Your task to perform on an android device: Empty the shopping cart on ebay. Image 0: 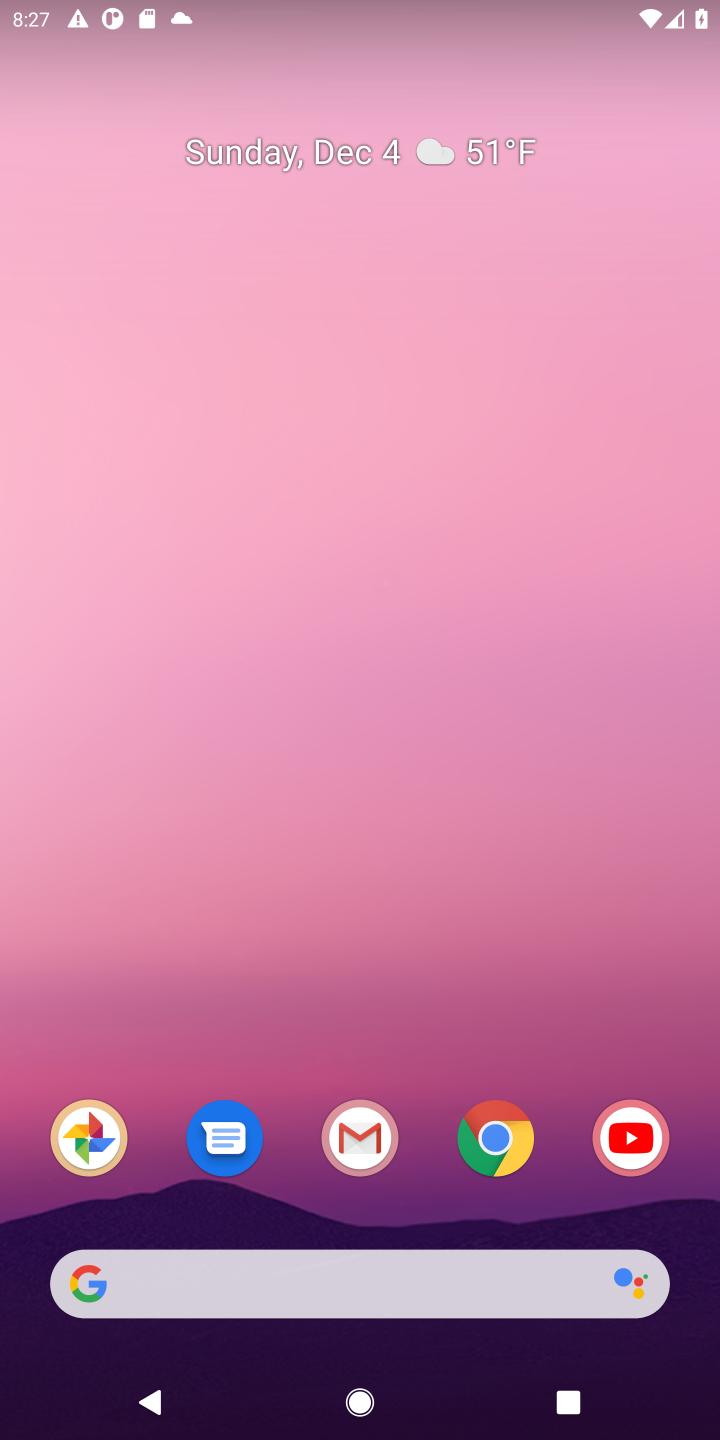
Step 0: click (485, 1136)
Your task to perform on an android device: Empty the shopping cart on ebay. Image 1: 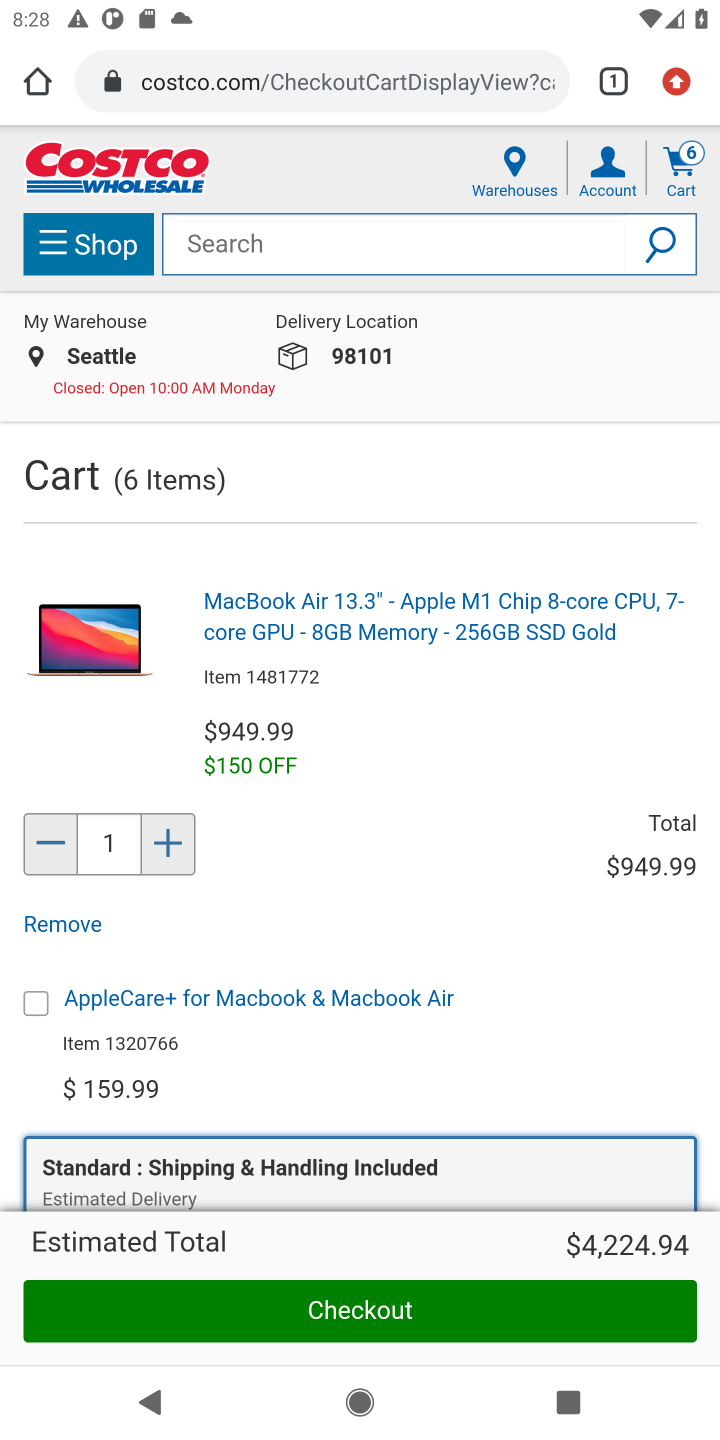
Step 1: click (493, 76)
Your task to perform on an android device: Empty the shopping cart on ebay. Image 2: 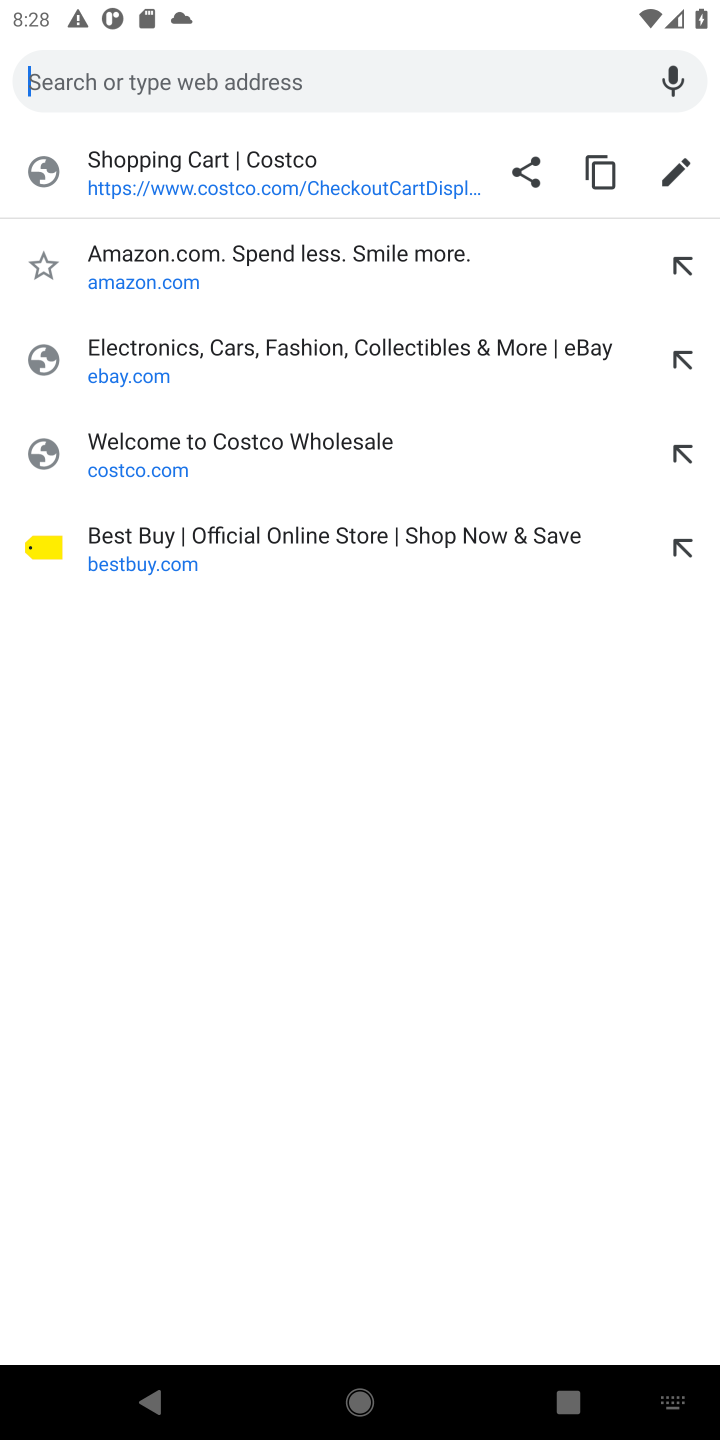
Step 2: click (283, 347)
Your task to perform on an android device: Empty the shopping cart on ebay. Image 3: 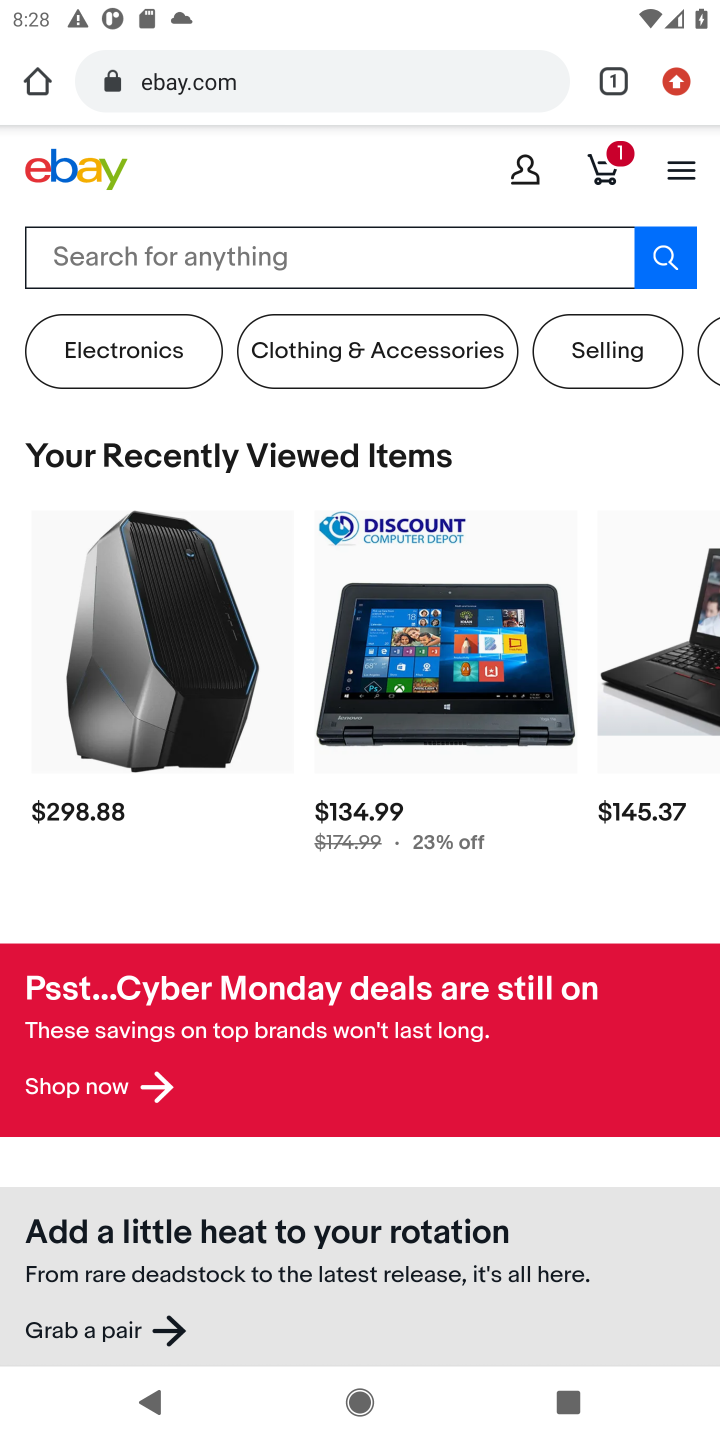
Step 3: click (606, 174)
Your task to perform on an android device: Empty the shopping cart on ebay. Image 4: 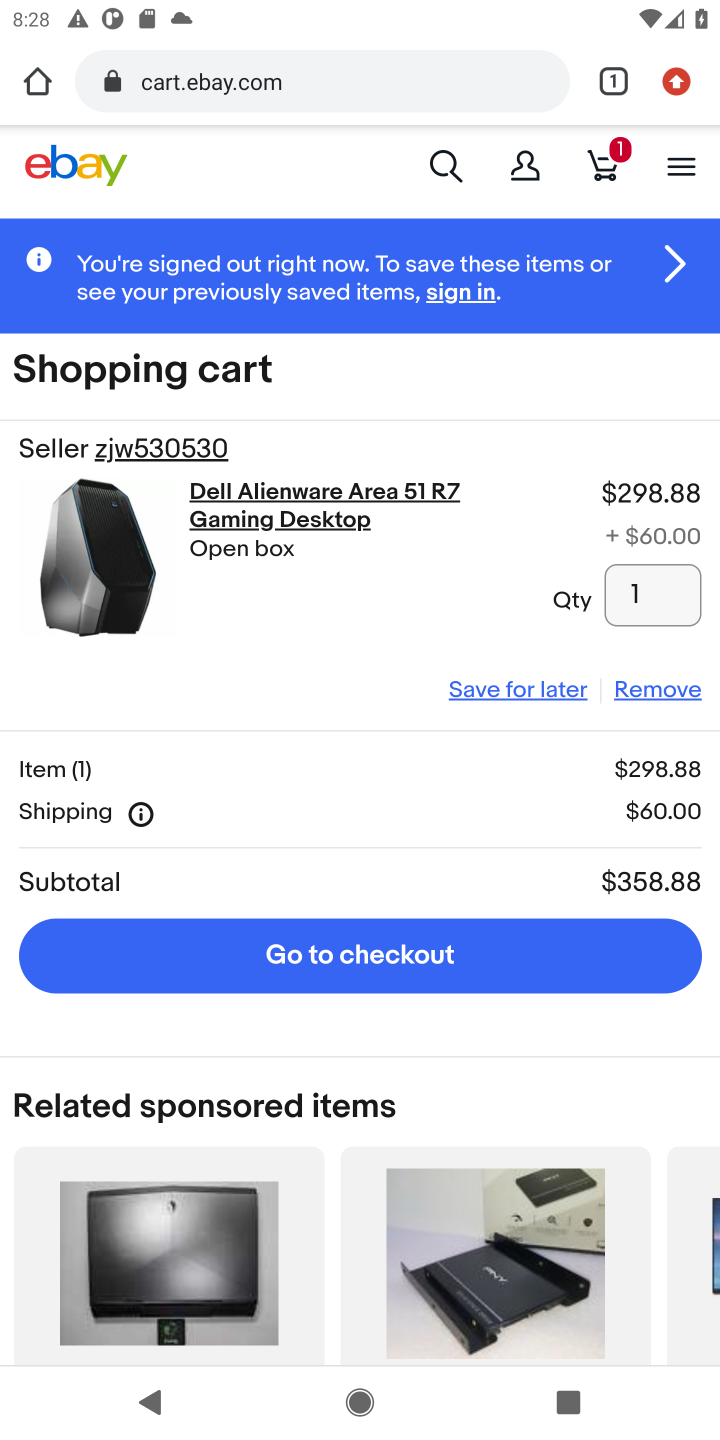
Step 4: click (647, 689)
Your task to perform on an android device: Empty the shopping cart on ebay. Image 5: 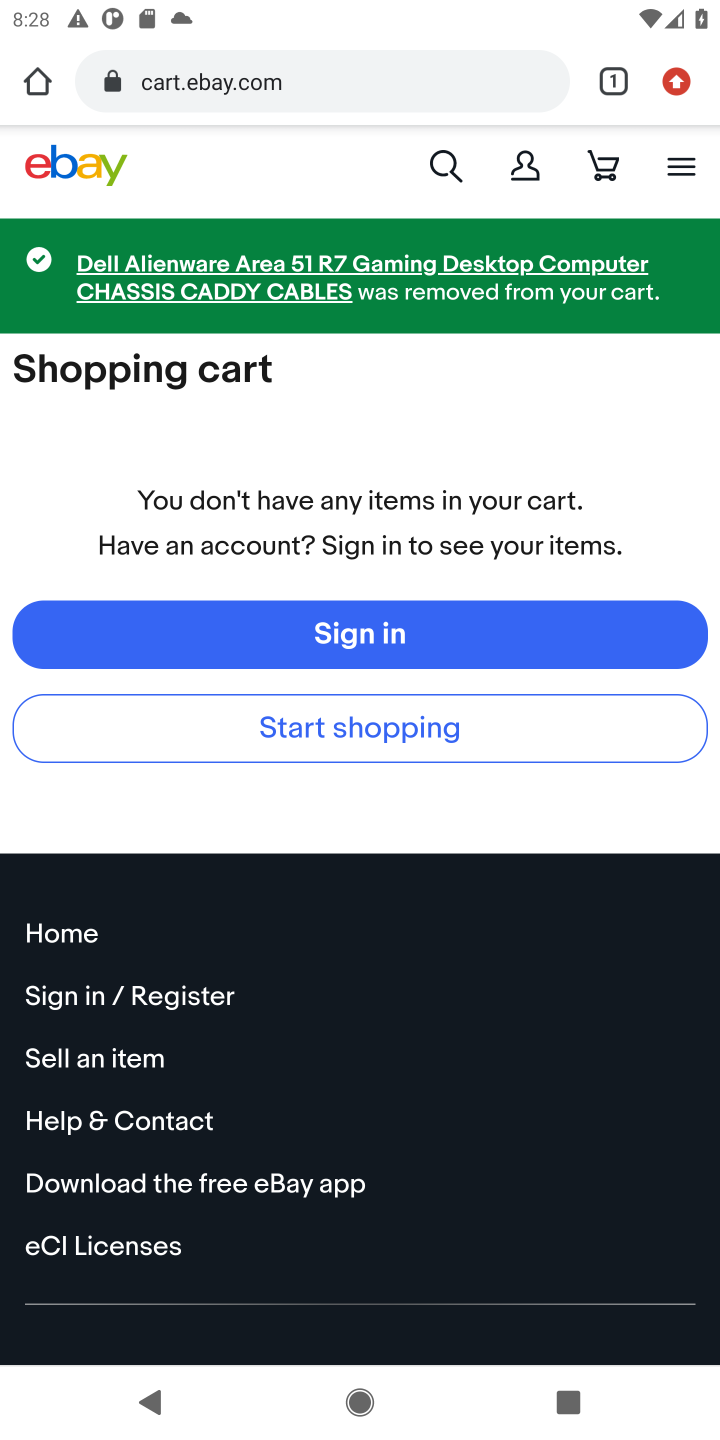
Step 5: task complete